Your task to perform on an android device: What is the recent news? Image 0: 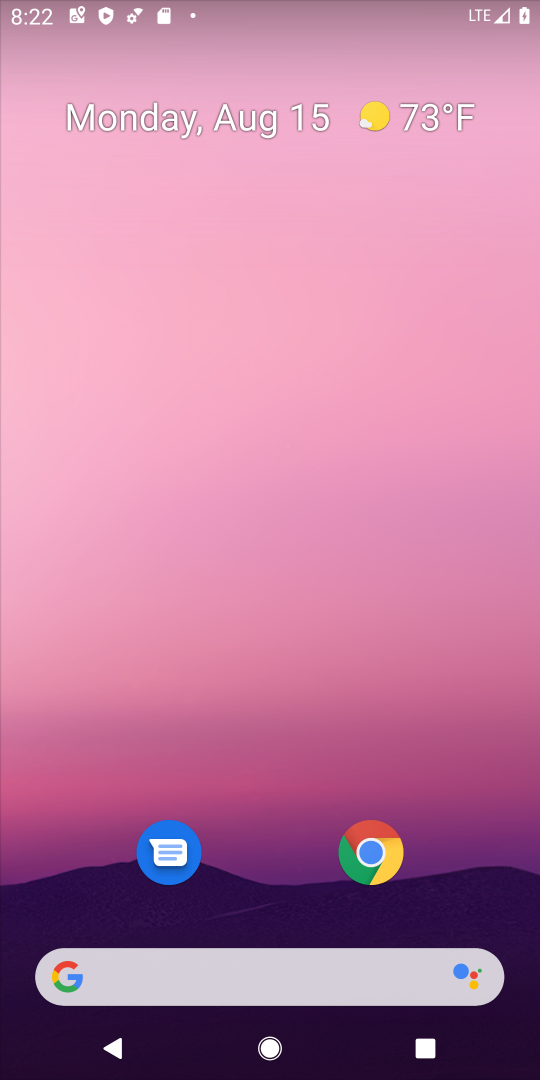
Step 0: drag from (270, 953) to (364, 66)
Your task to perform on an android device: What is the recent news? Image 1: 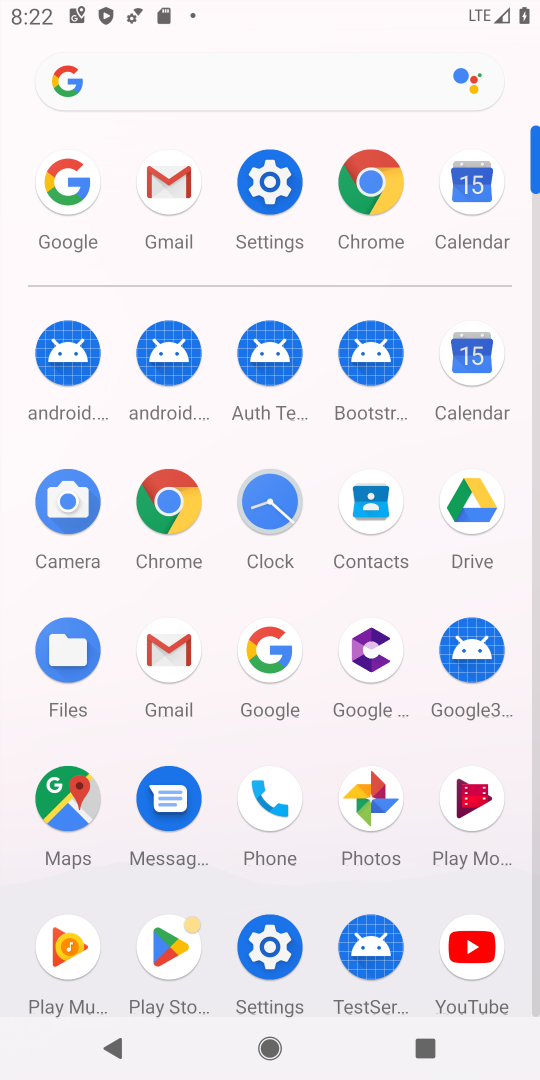
Step 1: click (65, 183)
Your task to perform on an android device: What is the recent news? Image 2: 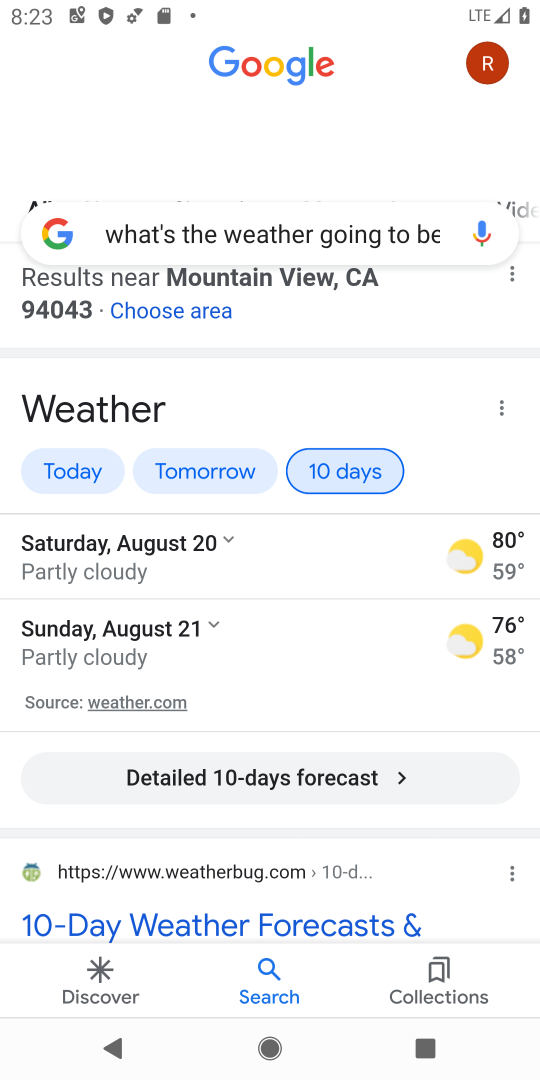
Step 2: click (399, 227)
Your task to perform on an android device: What is the recent news? Image 3: 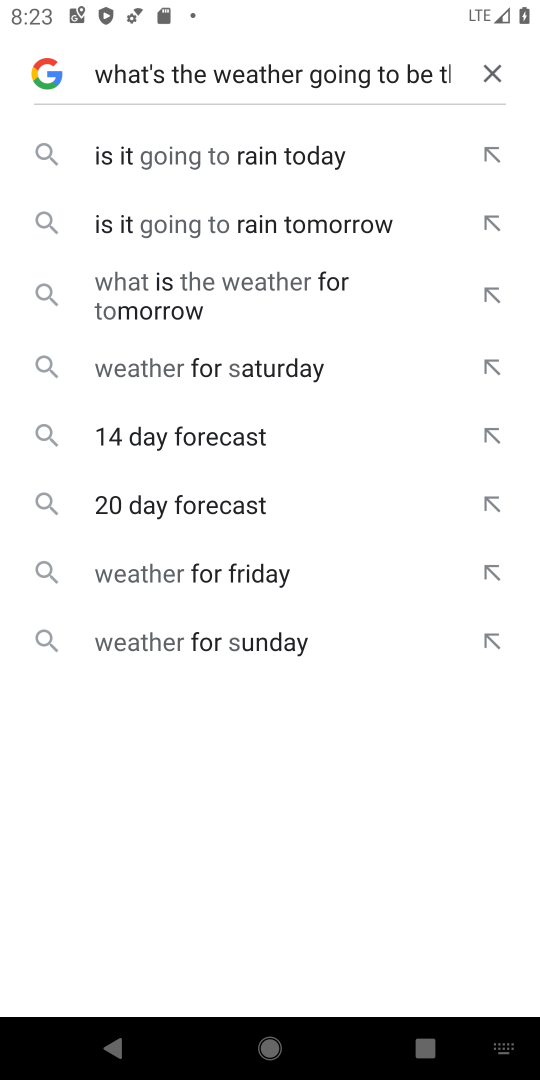
Step 3: click (497, 60)
Your task to perform on an android device: What is the recent news? Image 4: 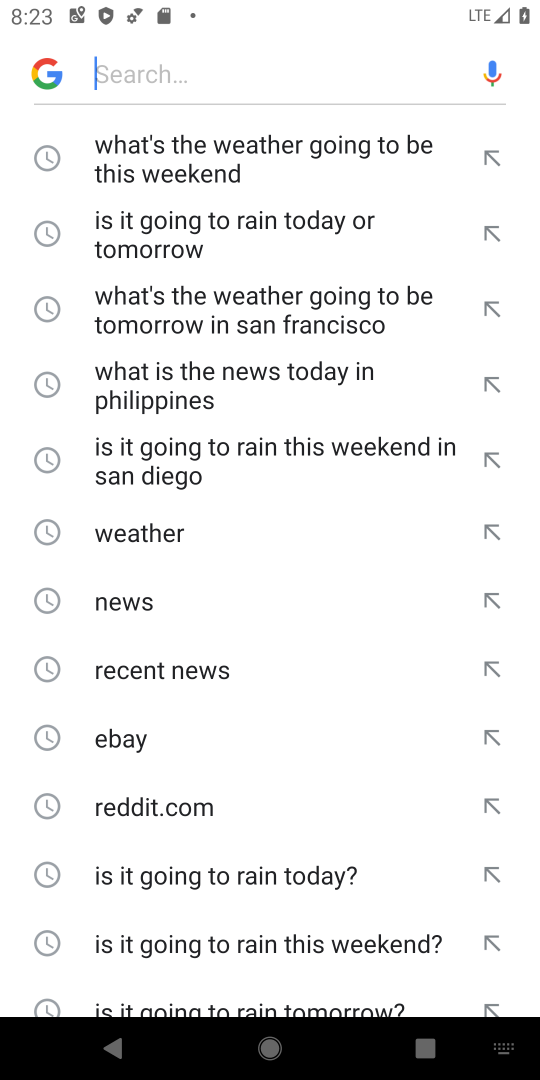
Step 4: type "what is the recent news?"
Your task to perform on an android device: What is the recent news? Image 5: 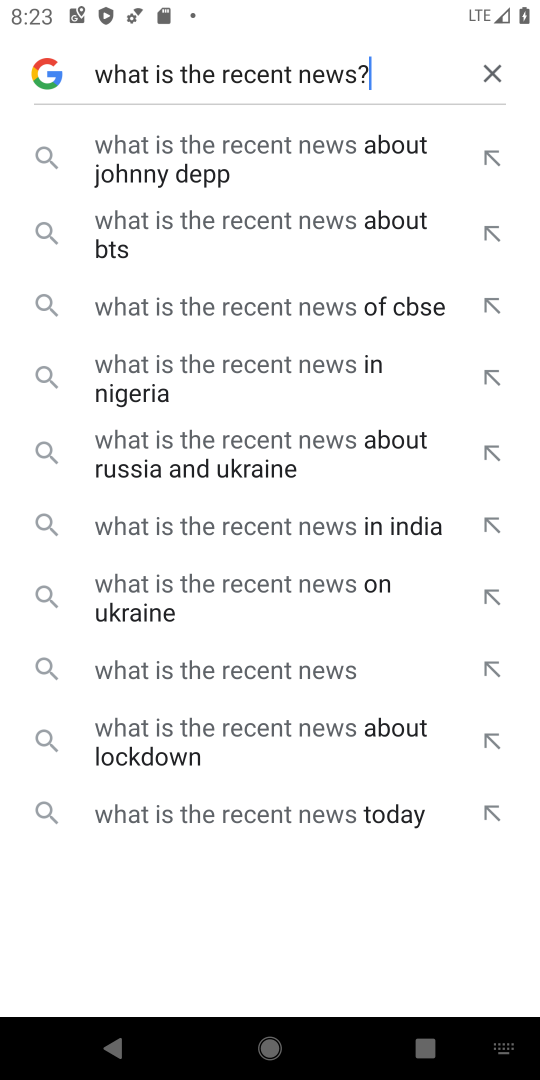
Step 5: click (174, 451)
Your task to perform on an android device: What is the recent news? Image 6: 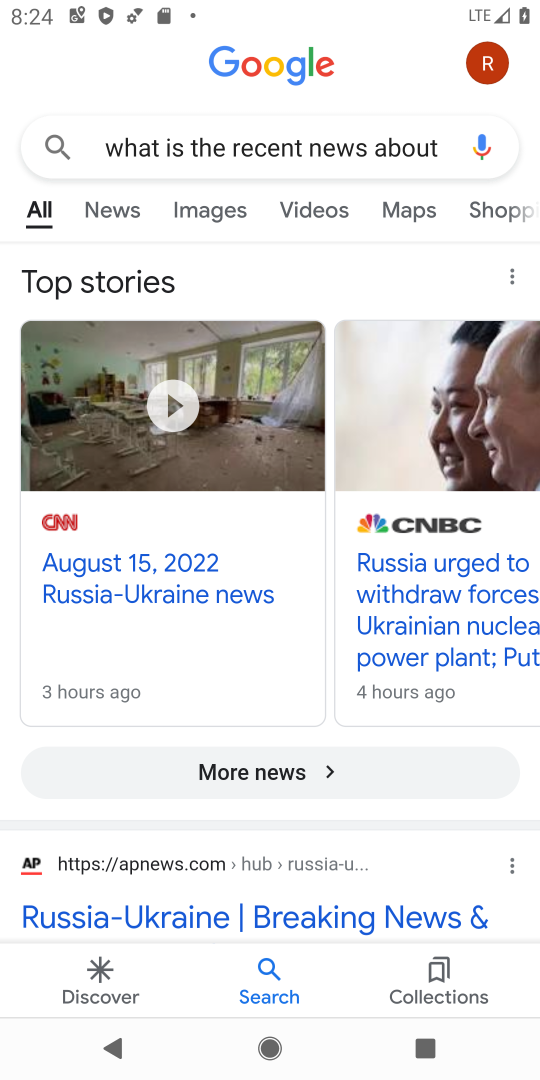
Step 6: click (165, 608)
Your task to perform on an android device: What is the recent news? Image 7: 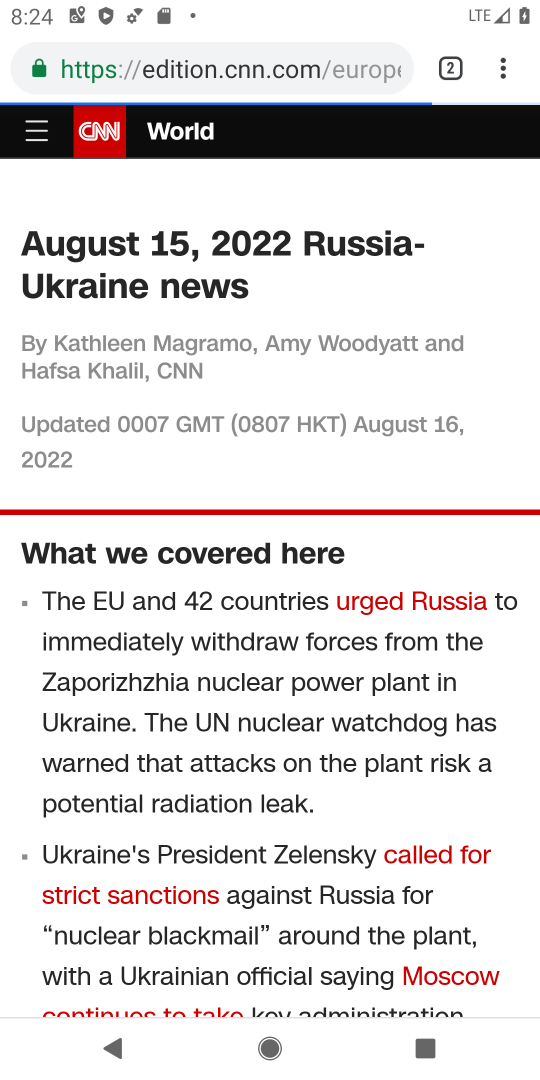
Step 7: task complete